Your task to perform on an android device: clear all cookies in the chrome app Image 0: 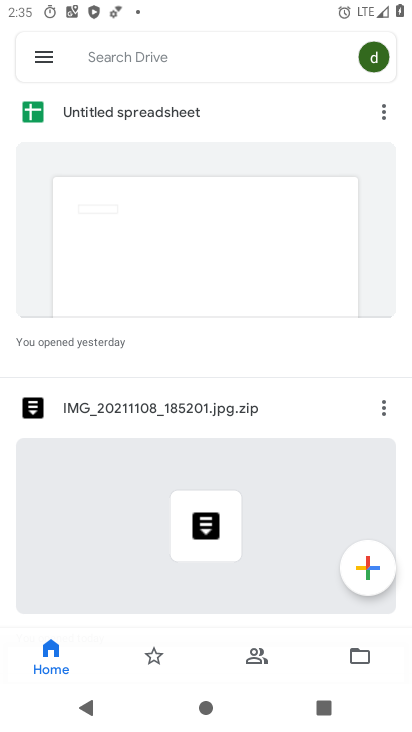
Step 0: press home button
Your task to perform on an android device: clear all cookies in the chrome app Image 1: 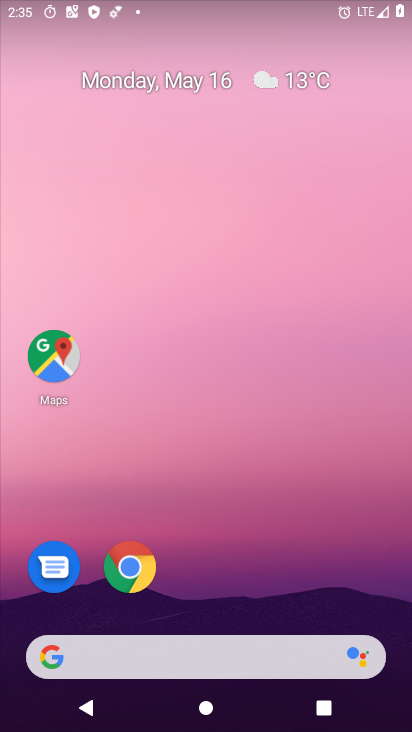
Step 1: click (150, 560)
Your task to perform on an android device: clear all cookies in the chrome app Image 2: 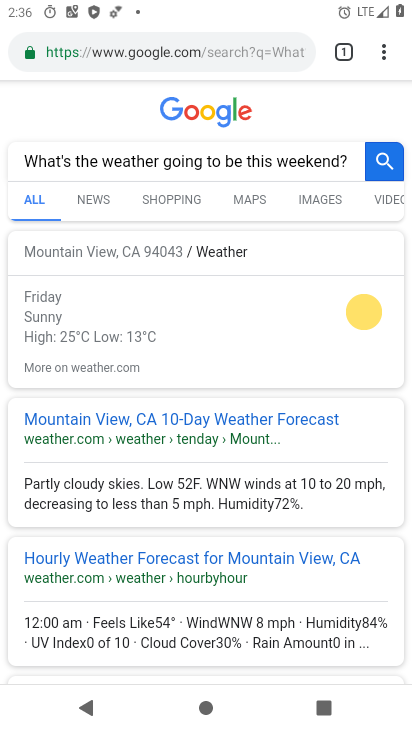
Step 2: click (385, 44)
Your task to perform on an android device: clear all cookies in the chrome app Image 3: 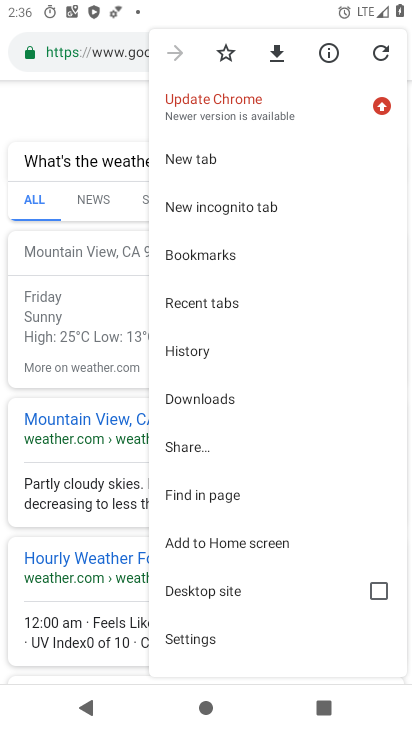
Step 3: click (201, 635)
Your task to perform on an android device: clear all cookies in the chrome app Image 4: 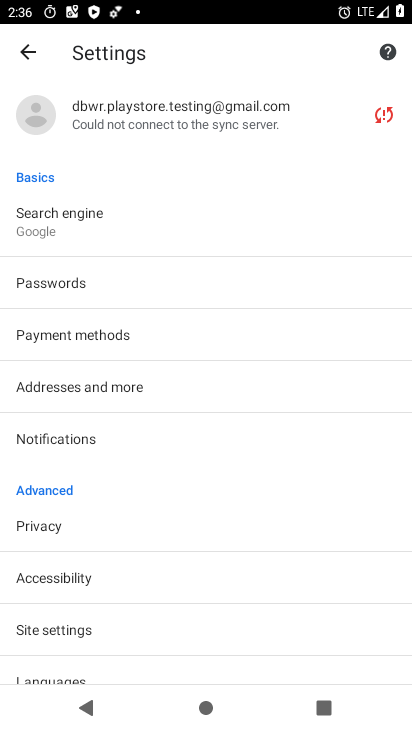
Step 4: click (37, 524)
Your task to perform on an android device: clear all cookies in the chrome app Image 5: 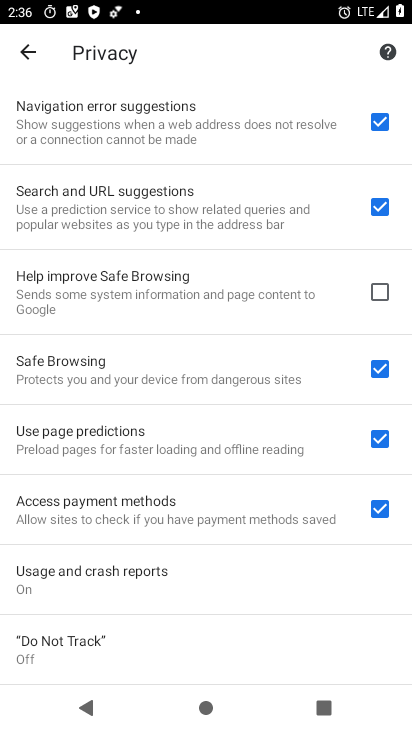
Step 5: drag from (308, 621) to (213, 101)
Your task to perform on an android device: clear all cookies in the chrome app Image 6: 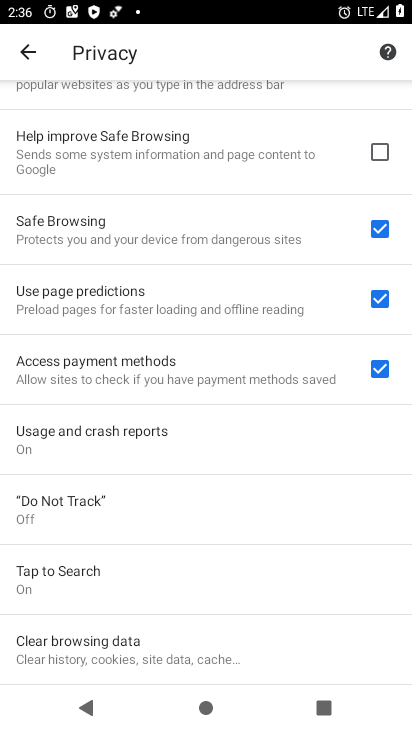
Step 6: click (103, 649)
Your task to perform on an android device: clear all cookies in the chrome app Image 7: 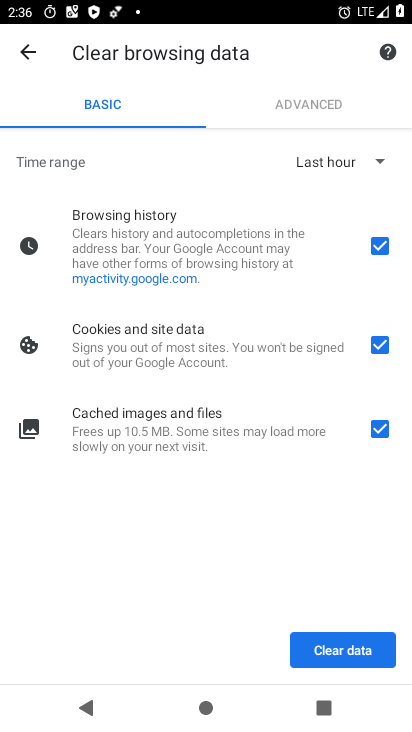
Step 7: click (369, 645)
Your task to perform on an android device: clear all cookies in the chrome app Image 8: 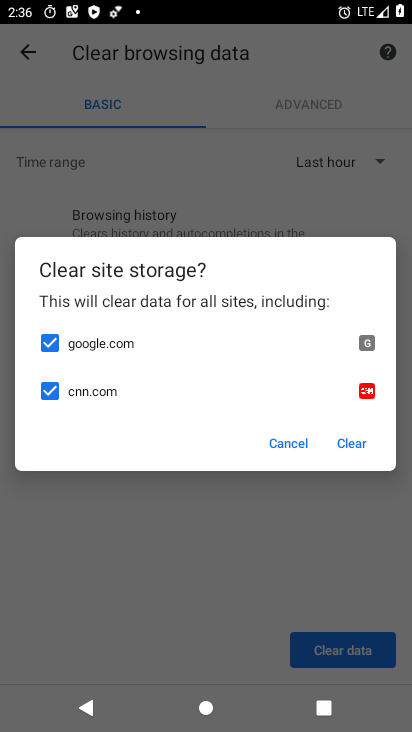
Step 8: click (347, 446)
Your task to perform on an android device: clear all cookies in the chrome app Image 9: 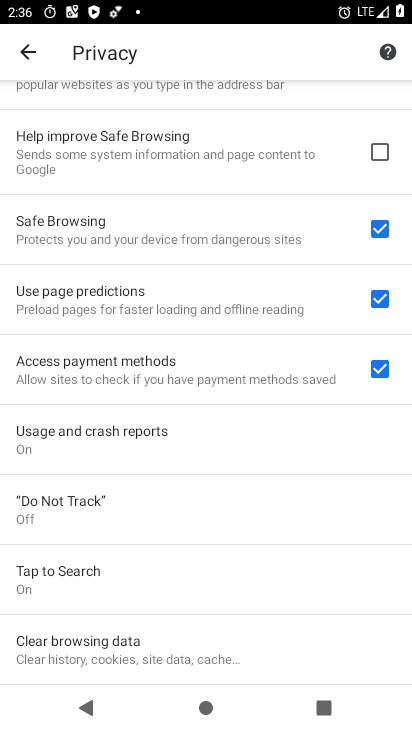
Step 9: task complete